Your task to perform on an android device: toggle data saver in the chrome app Image 0: 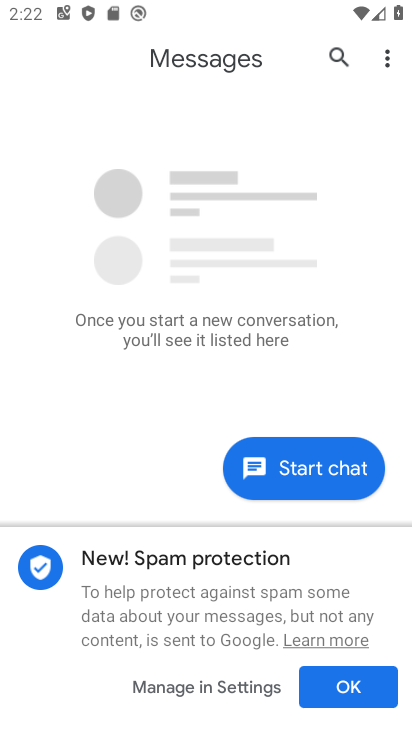
Step 0: press back button
Your task to perform on an android device: toggle data saver in the chrome app Image 1: 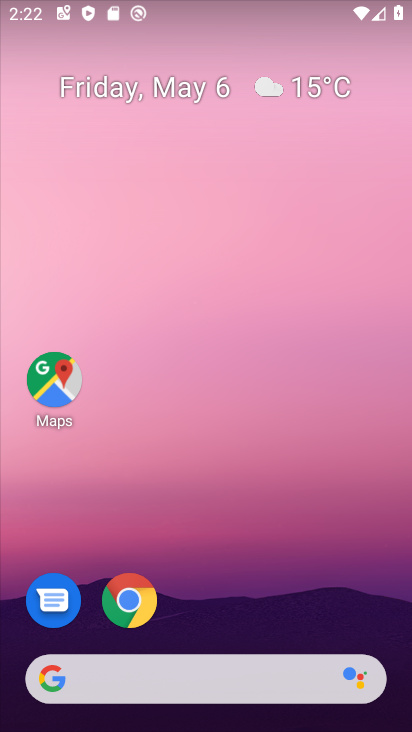
Step 1: drag from (216, 616) to (223, 28)
Your task to perform on an android device: toggle data saver in the chrome app Image 2: 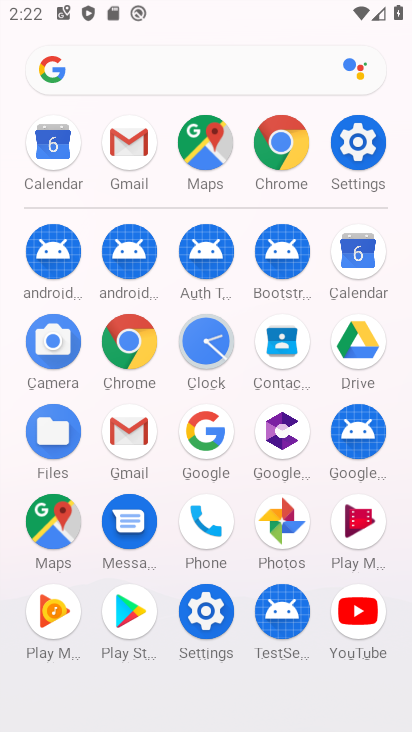
Step 2: click (279, 138)
Your task to perform on an android device: toggle data saver in the chrome app Image 3: 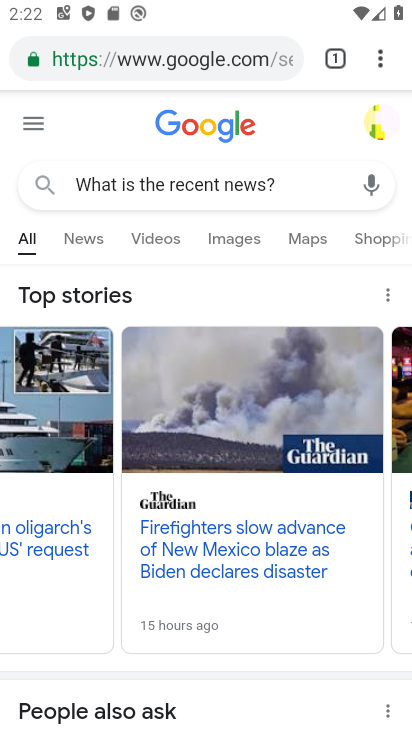
Step 3: drag from (382, 63) to (194, 644)
Your task to perform on an android device: toggle data saver in the chrome app Image 4: 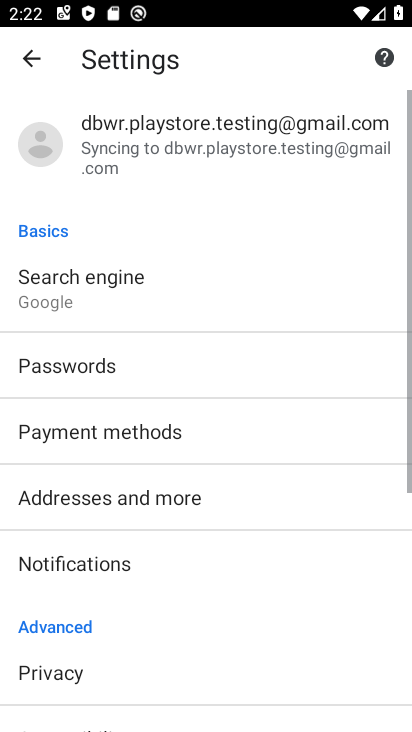
Step 4: drag from (192, 639) to (293, 214)
Your task to perform on an android device: toggle data saver in the chrome app Image 5: 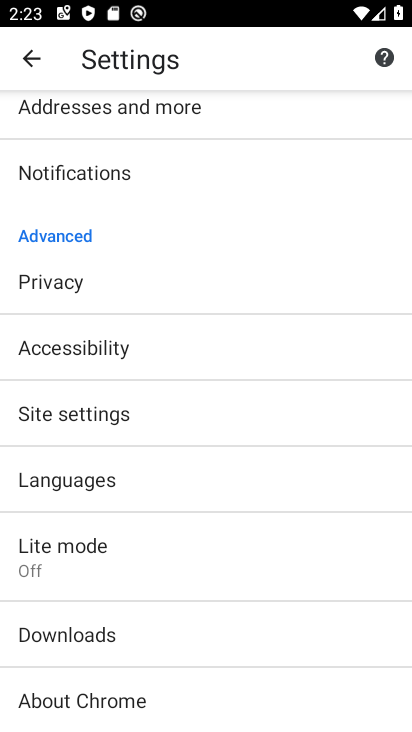
Step 5: drag from (250, 616) to (273, 286)
Your task to perform on an android device: toggle data saver in the chrome app Image 6: 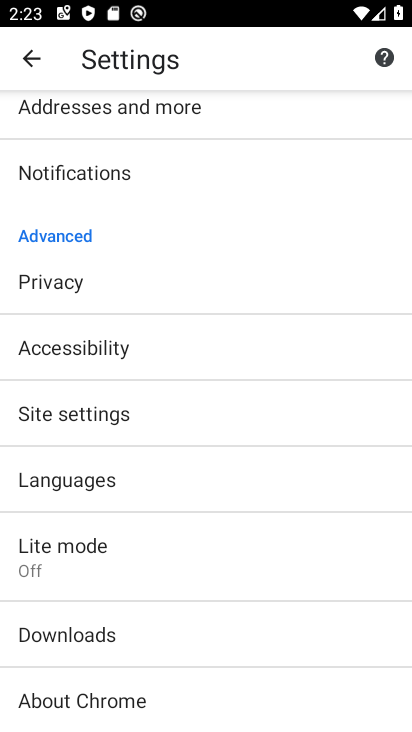
Step 6: drag from (248, 579) to (256, 176)
Your task to perform on an android device: toggle data saver in the chrome app Image 7: 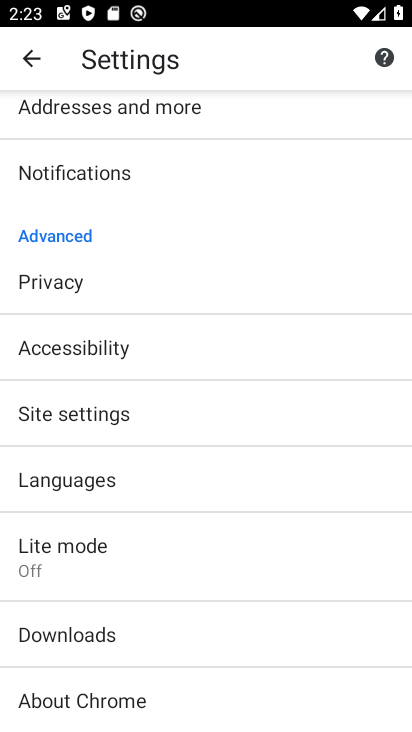
Step 7: click (158, 556)
Your task to perform on an android device: toggle data saver in the chrome app Image 8: 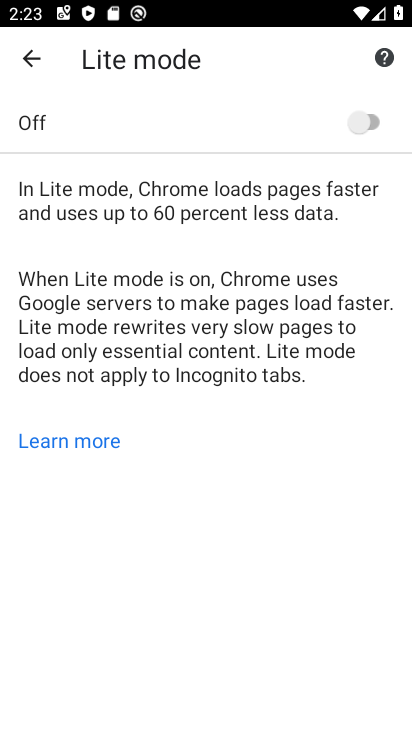
Step 8: click (367, 128)
Your task to perform on an android device: toggle data saver in the chrome app Image 9: 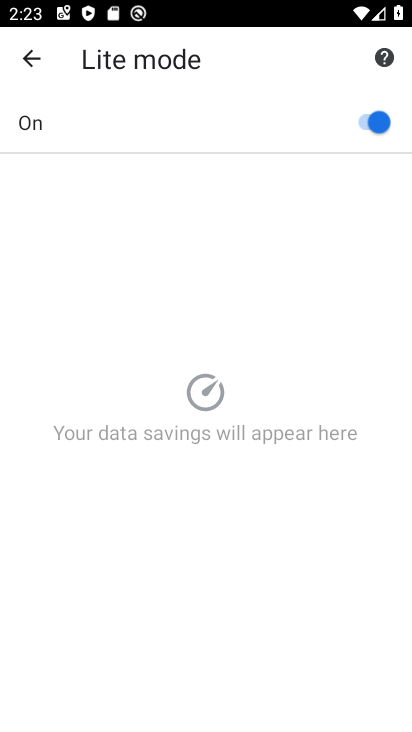
Step 9: task complete